Your task to perform on an android device: open app "eBay: The shopping marketplace" (install if not already installed), go to login, and select forgot password Image 0: 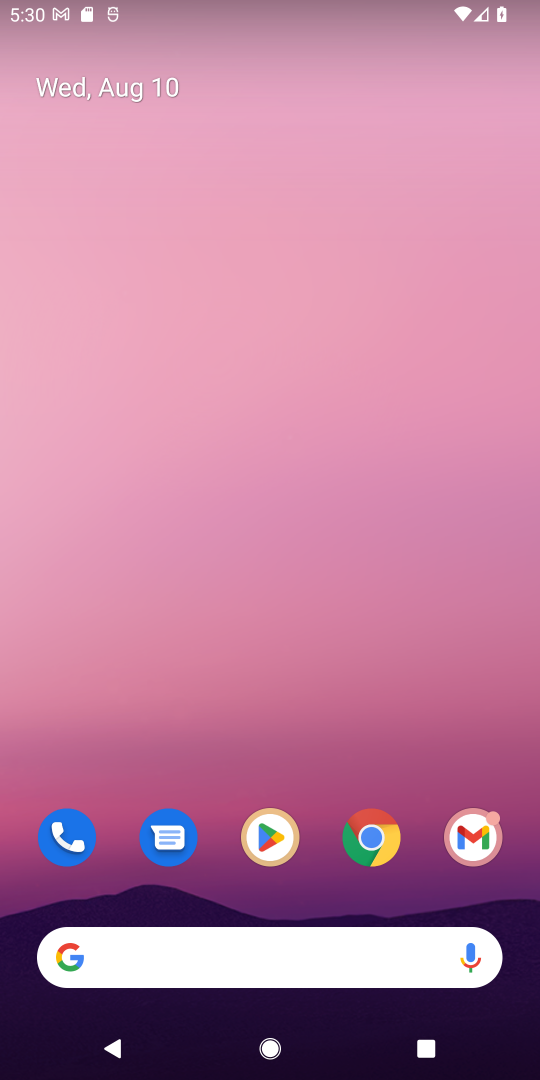
Step 0: press home button
Your task to perform on an android device: open app "eBay: The shopping marketplace" (install if not already installed), go to login, and select forgot password Image 1: 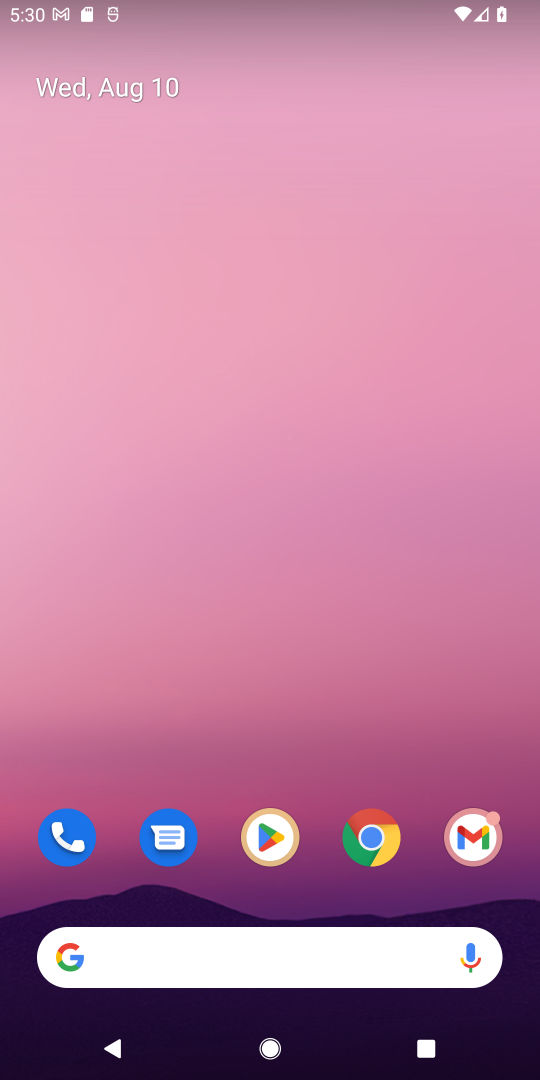
Step 1: click (277, 833)
Your task to perform on an android device: open app "eBay: The shopping marketplace" (install if not already installed), go to login, and select forgot password Image 2: 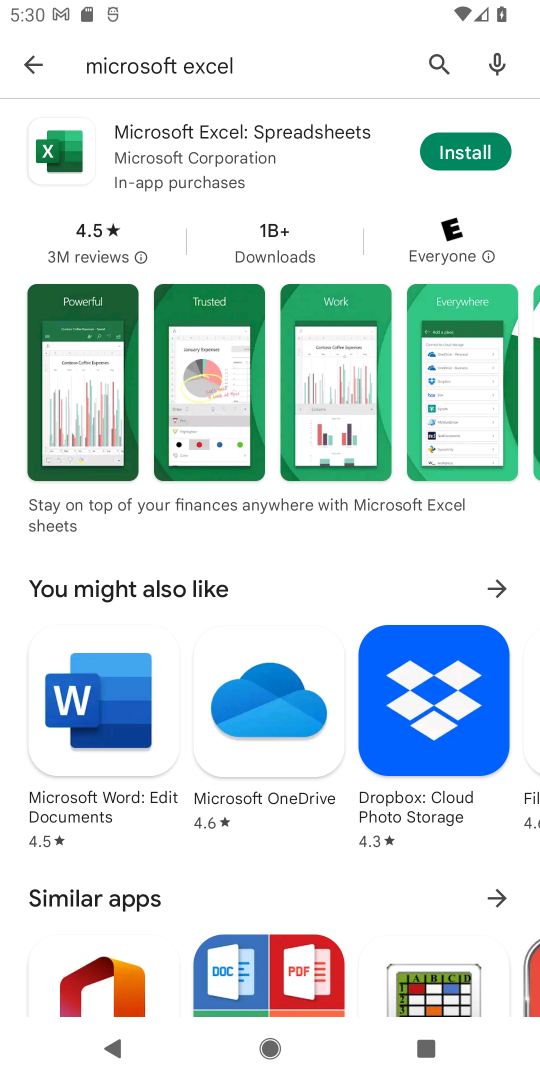
Step 2: click (434, 54)
Your task to perform on an android device: open app "eBay: The shopping marketplace" (install if not already installed), go to login, and select forgot password Image 3: 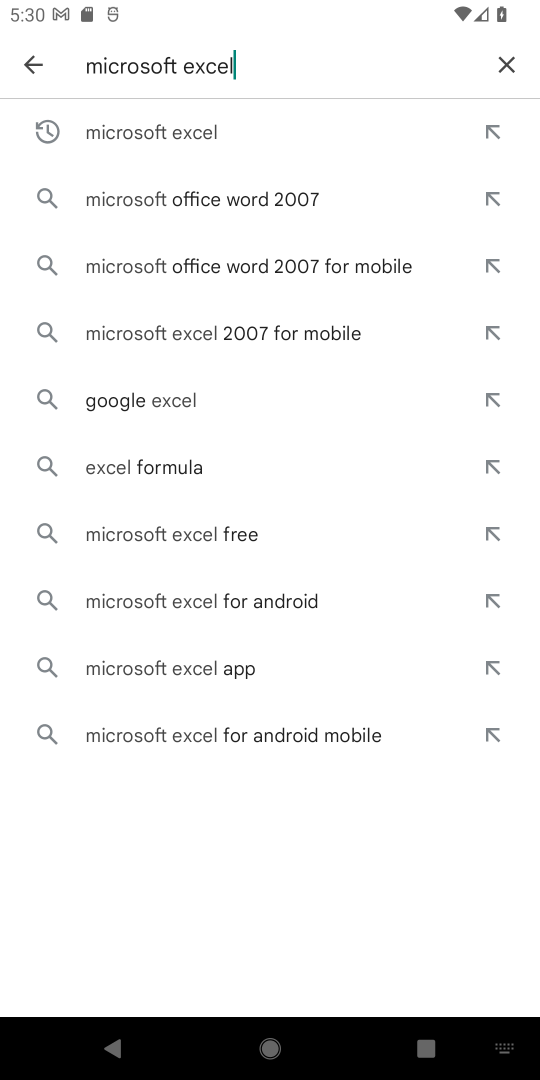
Step 3: click (495, 58)
Your task to perform on an android device: open app "eBay: The shopping marketplace" (install if not already installed), go to login, and select forgot password Image 4: 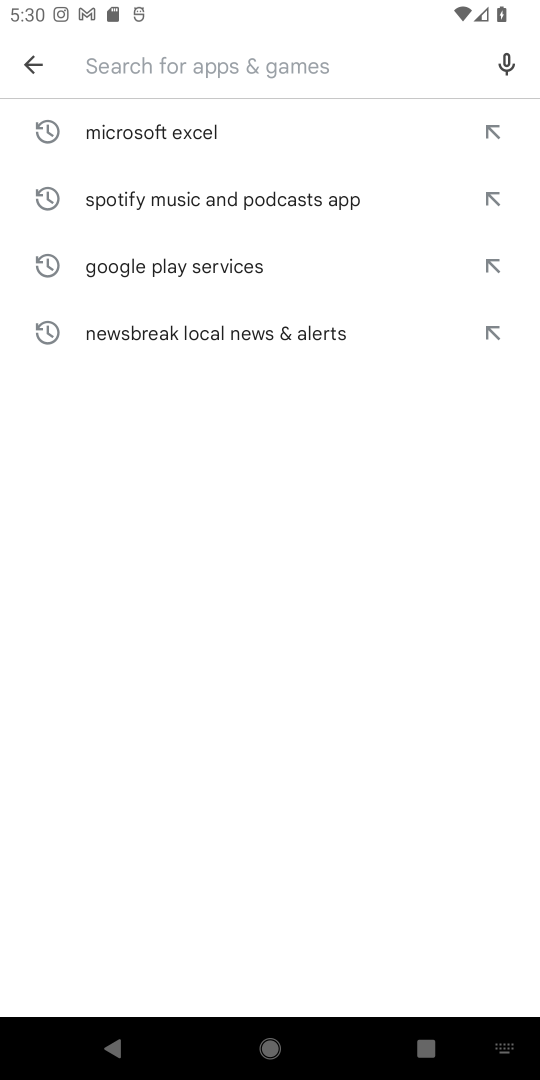
Step 4: type "eBay: The shopping marketplace"
Your task to perform on an android device: open app "eBay: The shopping marketplace" (install if not already installed), go to login, and select forgot password Image 5: 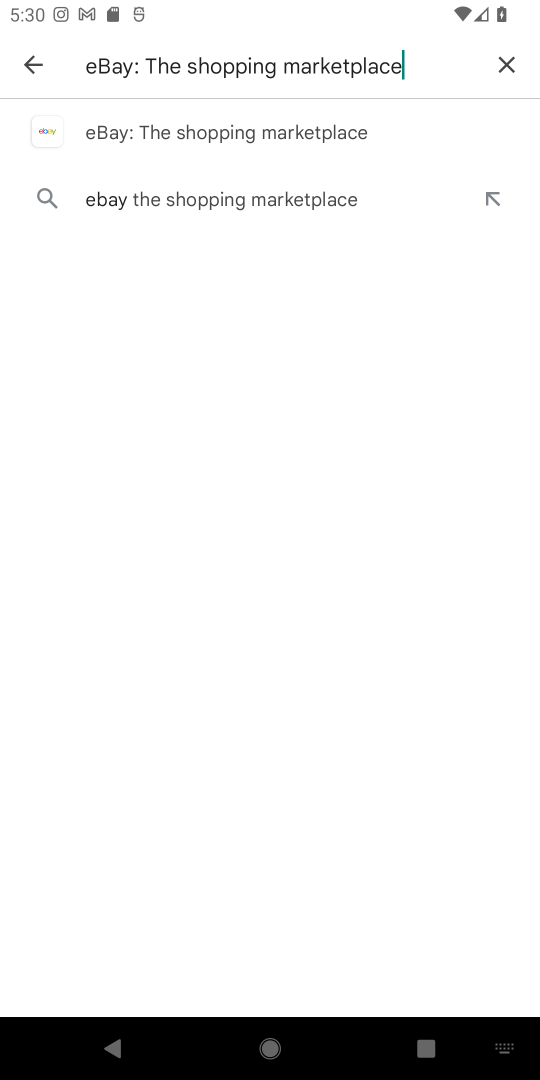
Step 5: click (289, 126)
Your task to perform on an android device: open app "eBay: The shopping marketplace" (install if not already installed), go to login, and select forgot password Image 6: 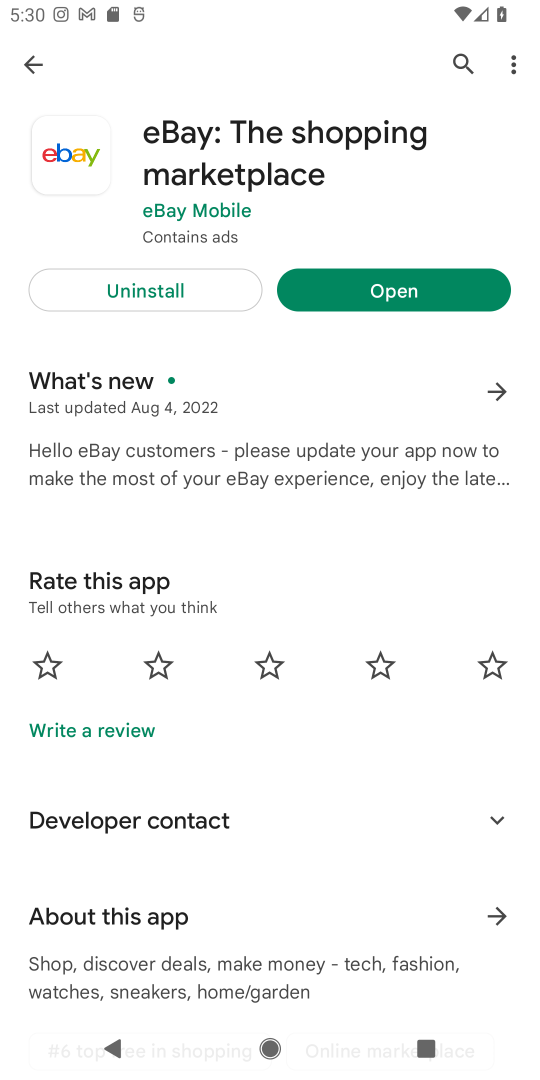
Step 6: click (378, 280)
Your task to perform on an android device: open app "eBay: The shopping marketplace" (install if not already installed), go to login, and select forgot password Image 7: 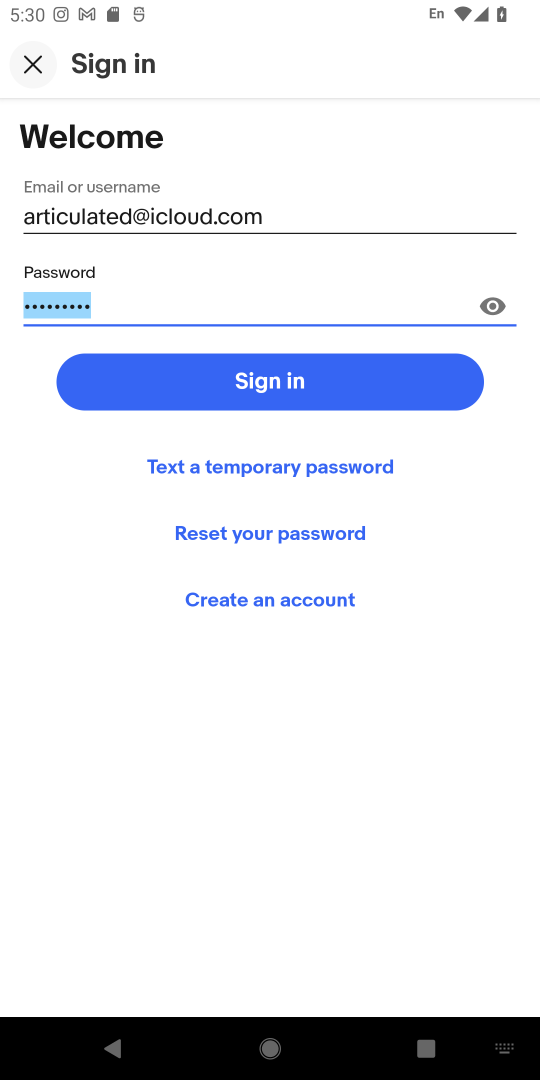
Step 7: click (328, 392)
Your task to perform on an android device: open app "eBay: The shopping marketplace" (install if not already installed), go to login, and select forgot password Image 8: 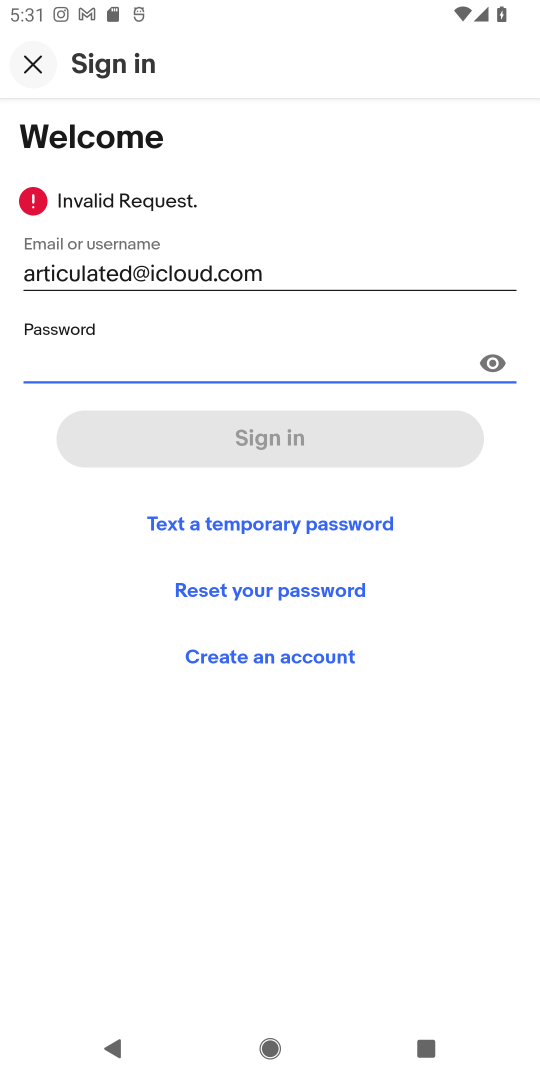
Step 8: task complete